Your task to perform on an android device: open a bookmark in the chrome app Image 0: 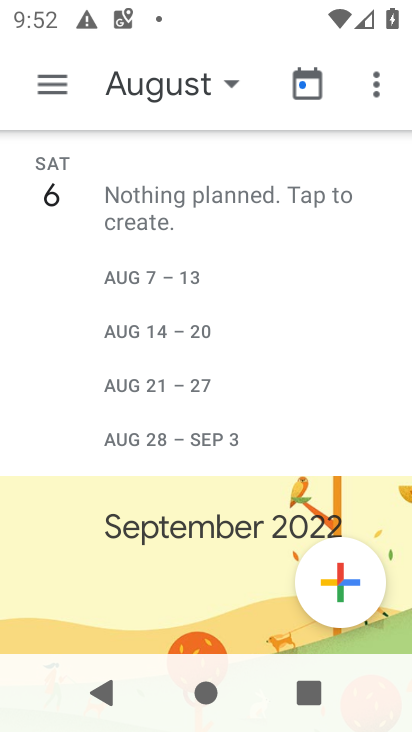
Step 0: press home button
Your task to perform on an android device: open a bookmark in the chrome app Image 1: 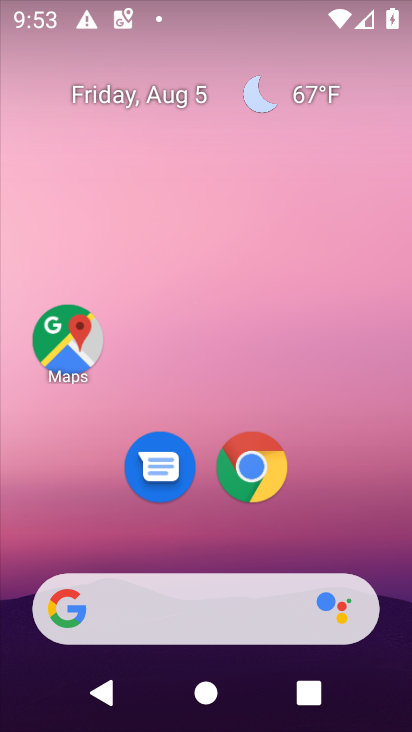
Step 1: click (249, 464)
Your task to perform on an android device: open a bookmark in the chrome app Image 2: 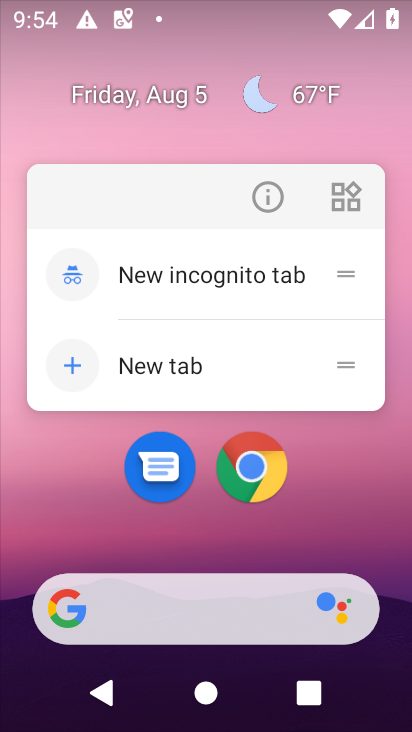
Step 2: click (254, 494)
Your task to perform on an android device: open a bookmark in the chrome app Image 3: 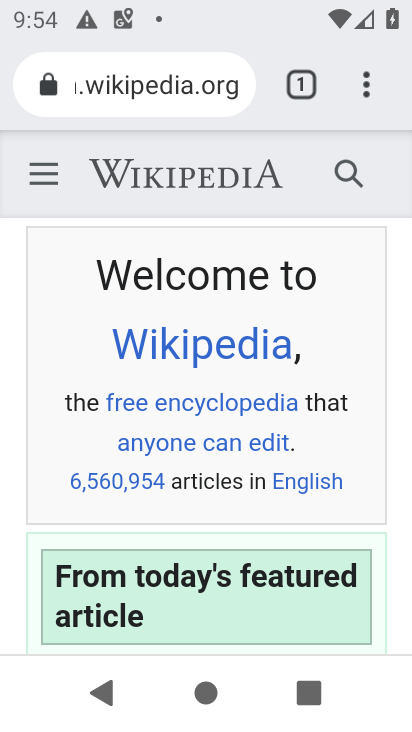
Step 3: click (364, 87)
Your task to perform on an android device: open a bookmark in the chrome app Image 4: 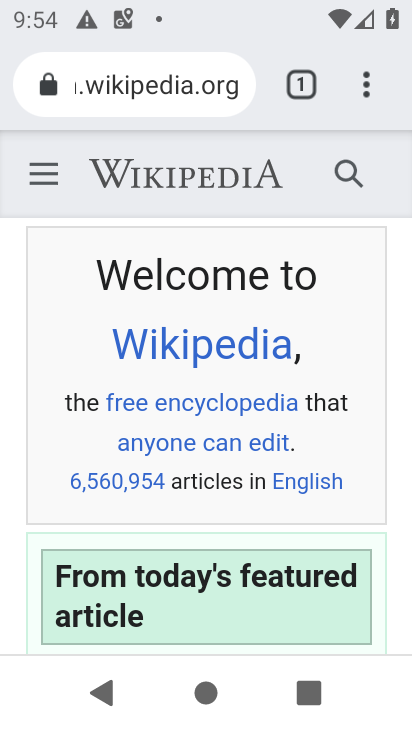
Step 4: click (361, 80)
Your task to perform on an android device: open a bookmark in the chrome app Image 5: 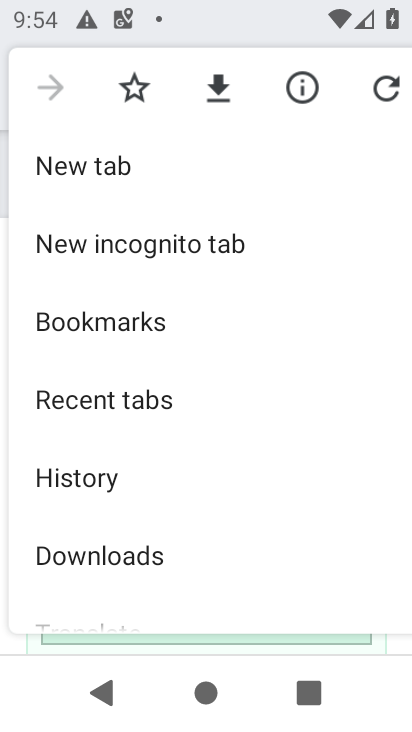
Step 5: drag from (121, 569) to (125, 181)
Your task to perform on an android device: open a bookmark in the chrome app Image 6: 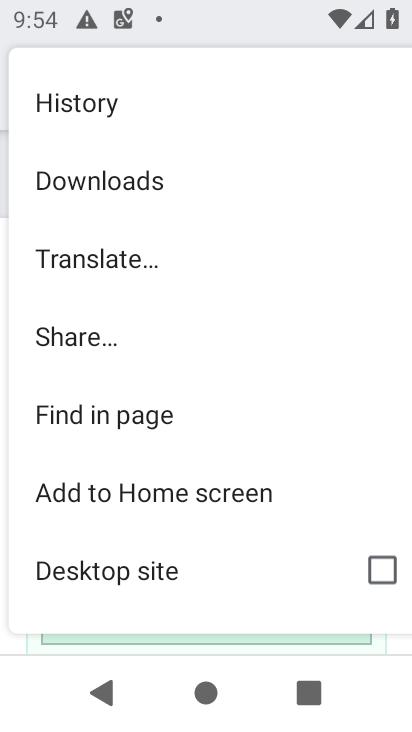
Step 6: drag from (130, 167) to (136, 528)
Your task to perform on an android device: open a bookmark in the chrome app Image 7: 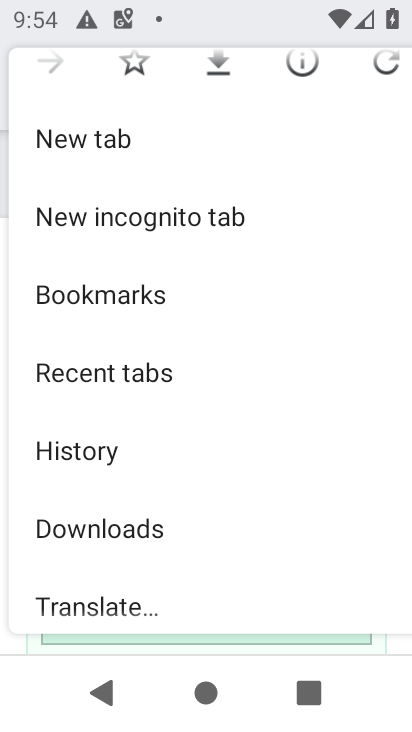
Step 7: click (102, 299)
Your task to perform on an android device: open a bookmark in the chrome app Image 8: 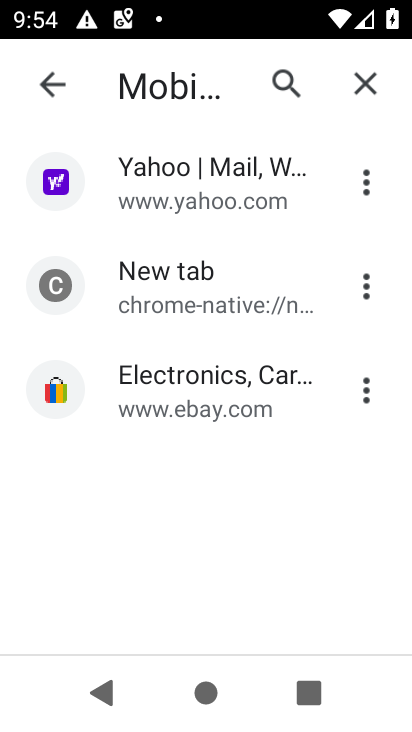
Step 8: task complete